Your task to perform on an android device: change the clock display to analog Image 0: 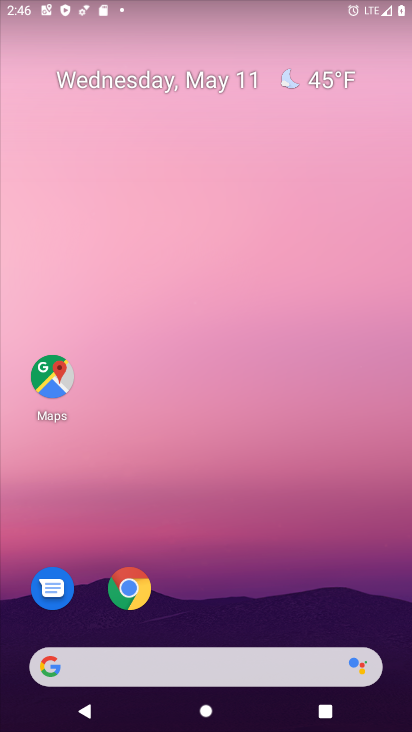
Step 0: drag from (215, 617) to (223, 312)
Your task to perform on an android device: change the clock display to analog Image 1: 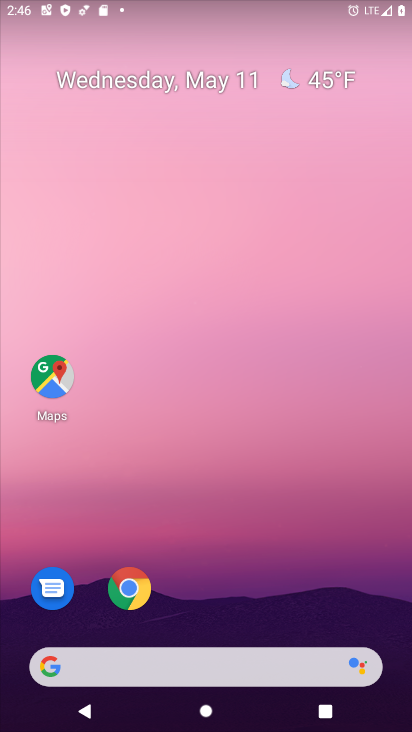
Step 1: drag from (190, 577) to (253, 147)
Your task to perform on an android device: change the clock display to analog Image 2: 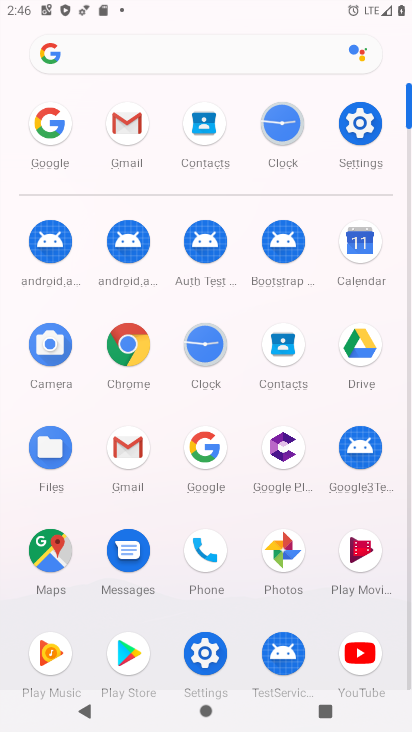
Step 2: click (278, 127)
Your task to perform on an android device: change the clock display to analog Image 3: 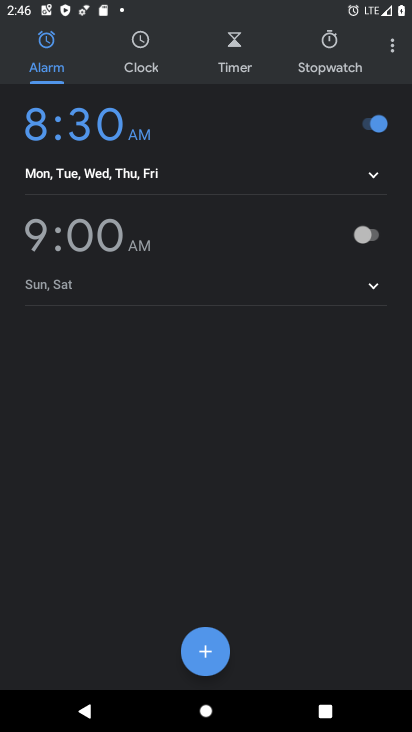
Step 3: click (387, 49)
Your task to perform on an android device: change the clock display to analog Image 4: 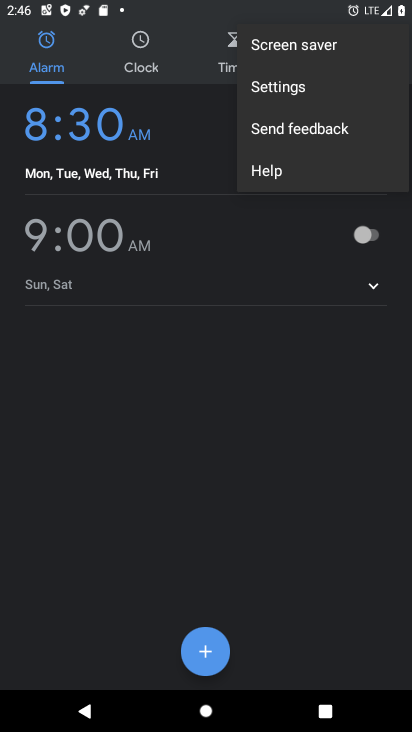
Step 4: click (324, 93)
Your task to perform on an android device: change the clock display to analog Image 5: 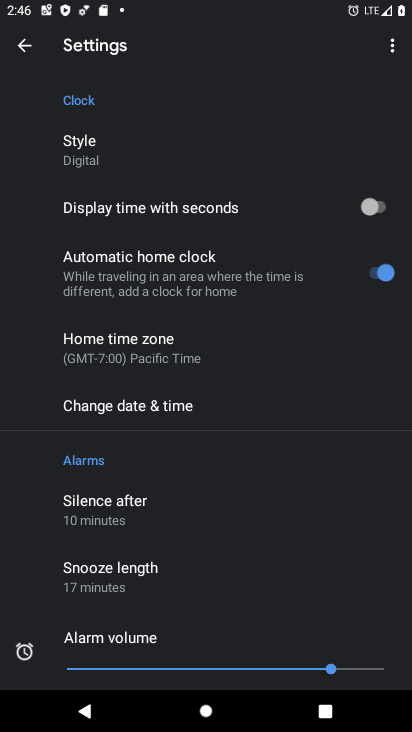
Step 5: click (122, 159)
Your task to perform on an android device: change the clock display to analog Image 6: 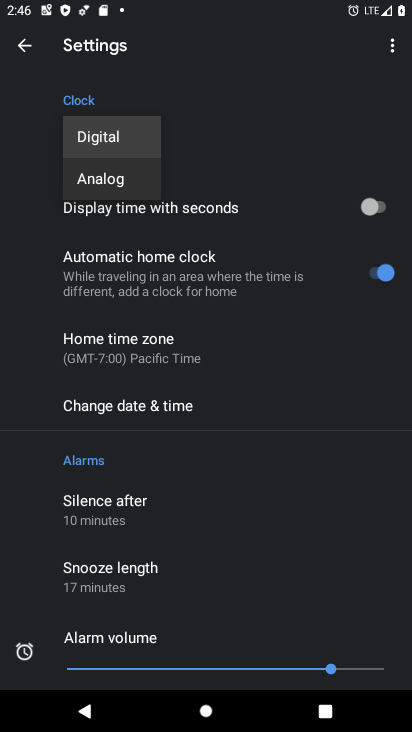
Step 6: click (124, 173)
Your task to perform on an android device: change the clock display to analog Image 7: 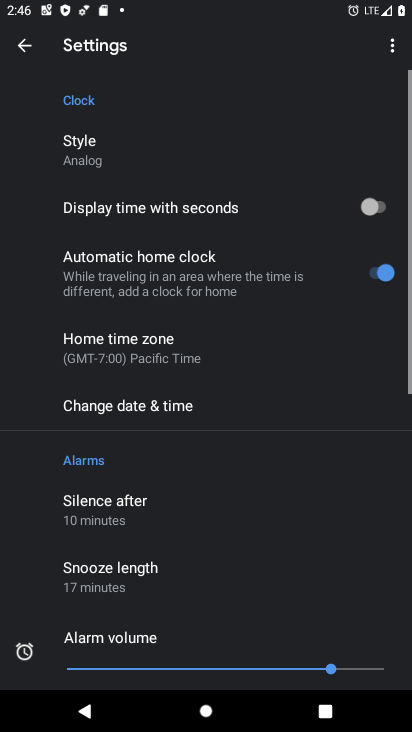
Step 7: task complete